Your task to perform on an android device: move a message to another label in the gmail app Image 0: 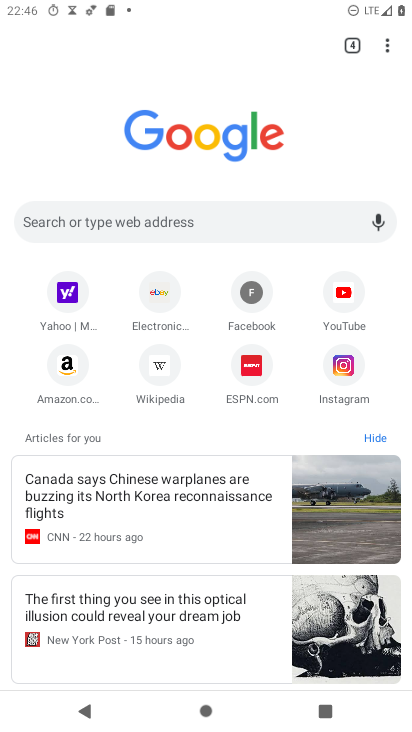
Step 0: press back button
Your task to perform on an android device: move a message to another label in the gmail app Image 1: 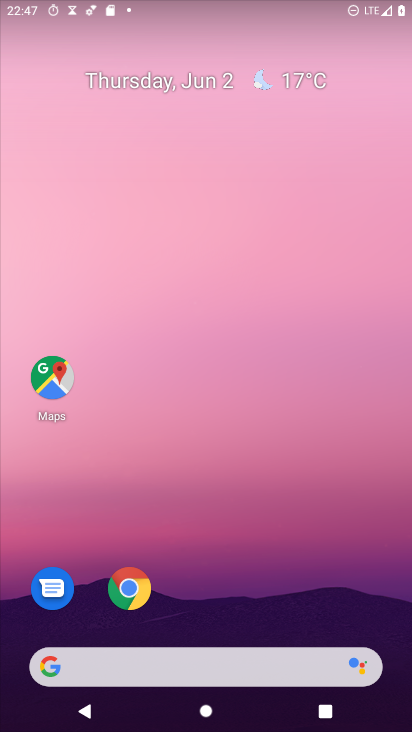
Step 1: drag from (222, 572) to (236, 25)
Your task to perform on an android device: move a message to another label in the gmail app Image 2: 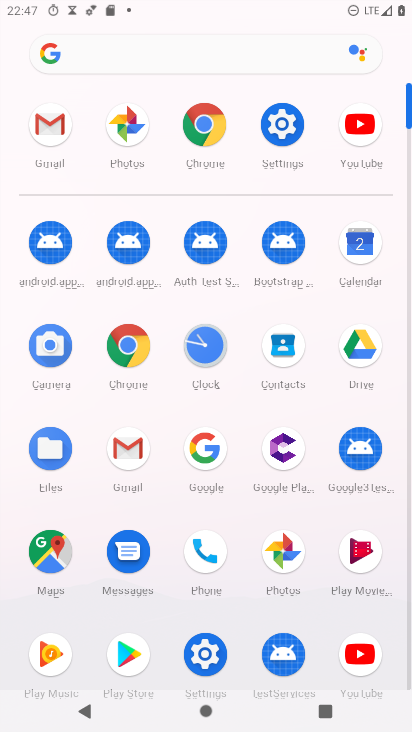
Step 2: click (44, 129)
Your task to perform on an android device: move a message to another label in the gmail app Image 3: 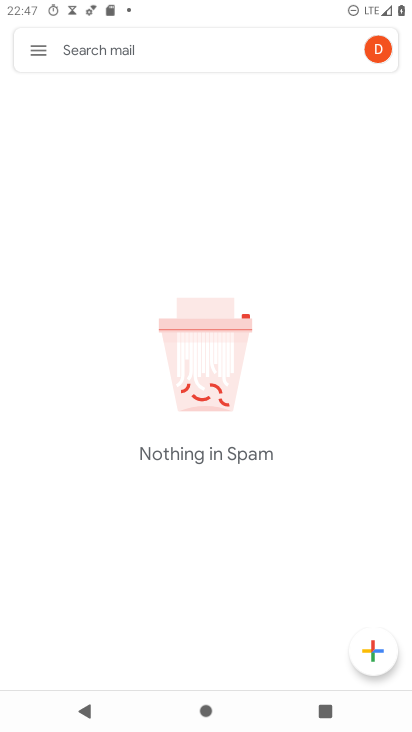
Step 3: click (30, 53)
Your task to perform on an android device: move a message to another label in the gmail app Image 4: 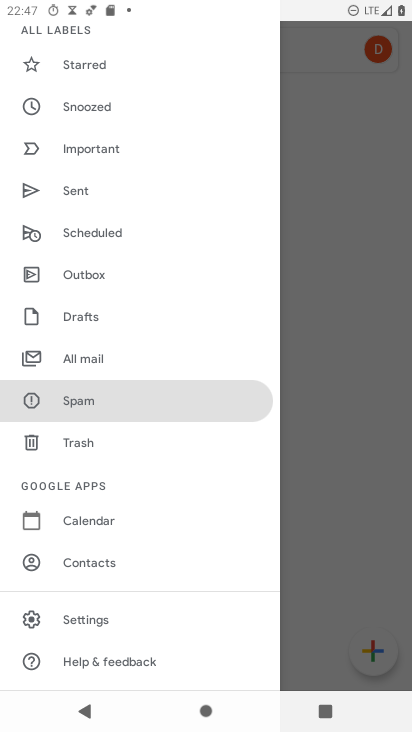
Step 4: click (111, 353)
Your task to perform on an android device: move a message to another label in the gmail app Image 5: 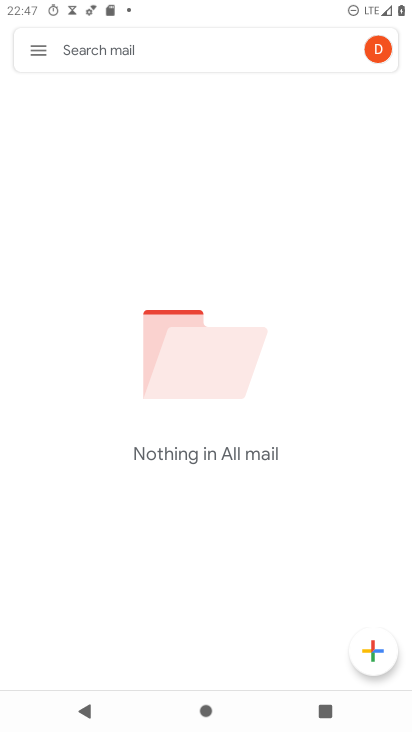
Step 5: task complete